Your task to perform on an android device: Open location settings Image 0: 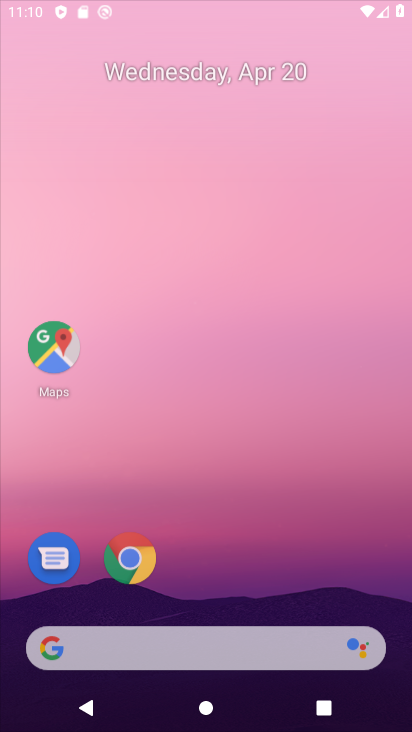
Step 0: drag from (239, 240) to (281, 472)
Your task to perform on an android device: Open location settings Image 1: 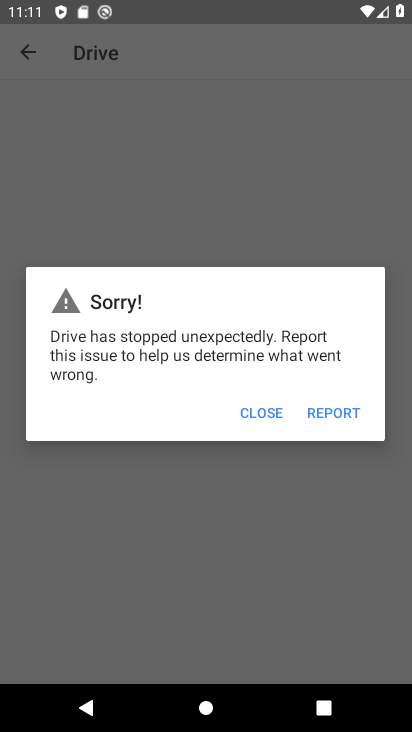
Step 1: press home button
Your task to perform on an android device: Open location settings Image 2: 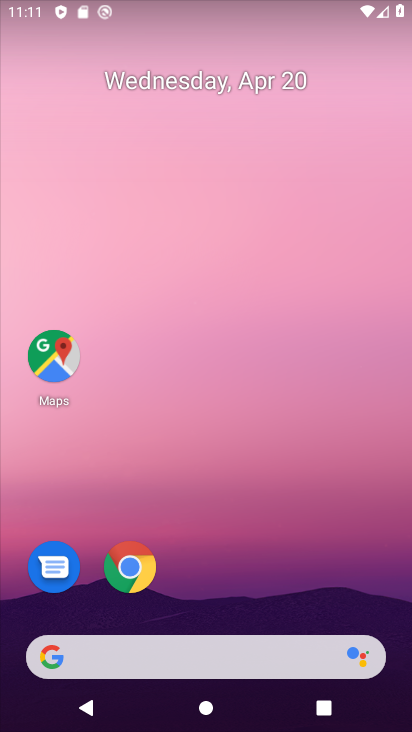
Step 2: drag from (318, 617) to (255, 126)
Your task to perform on an android device: Open location settings Image 3: 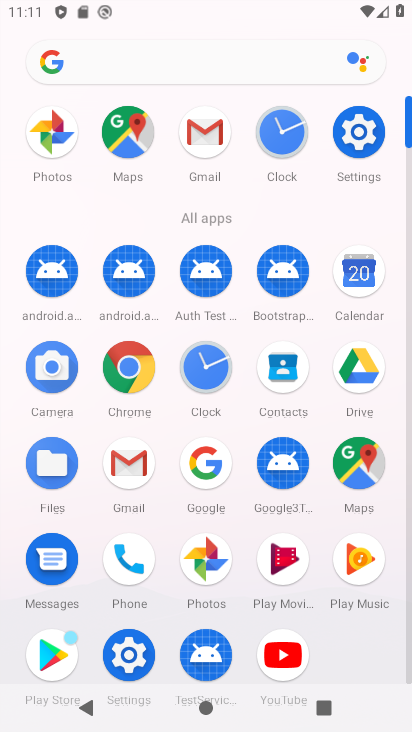
Step 3: click (355, 131)
Your task to perform on an android device: Open location settings Image 4: 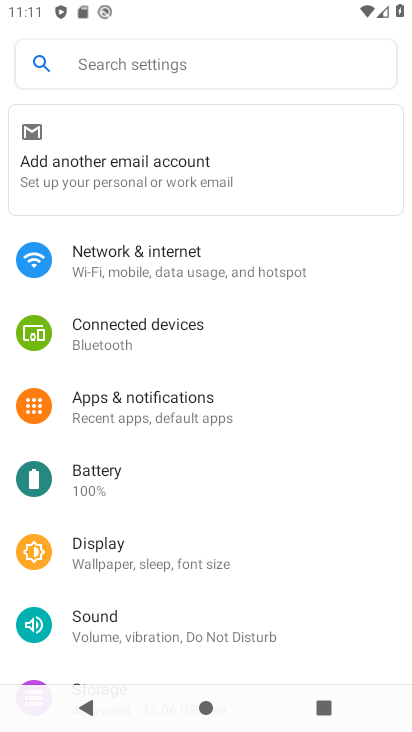
Step 4: drag from (203, 631) to (175, 310)
Your task to perform on an android device: Open location settings Image 5: 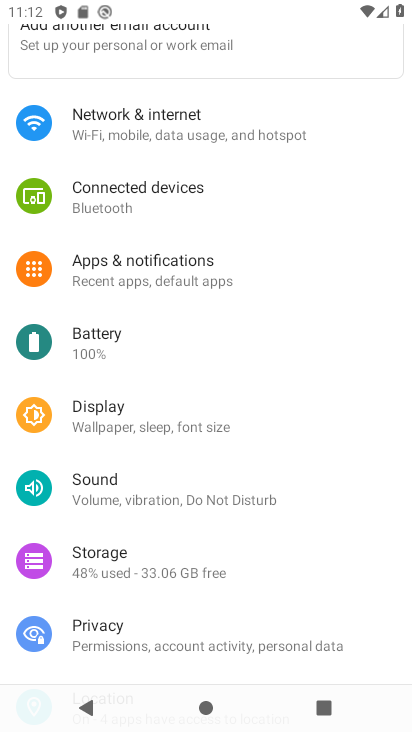
Step 5: drag from (249, 601) to (213, 166)
Your task to perform on an android device: Open location settings Image 6: 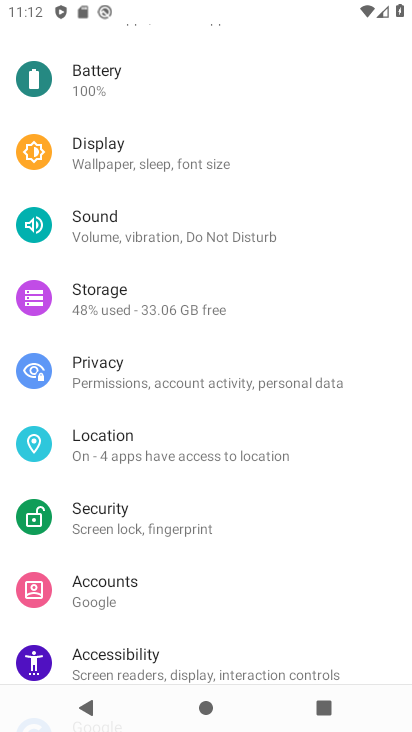
Step 6: click (237, 443)
Your task to perform on an android device: Open location settings Image 7: 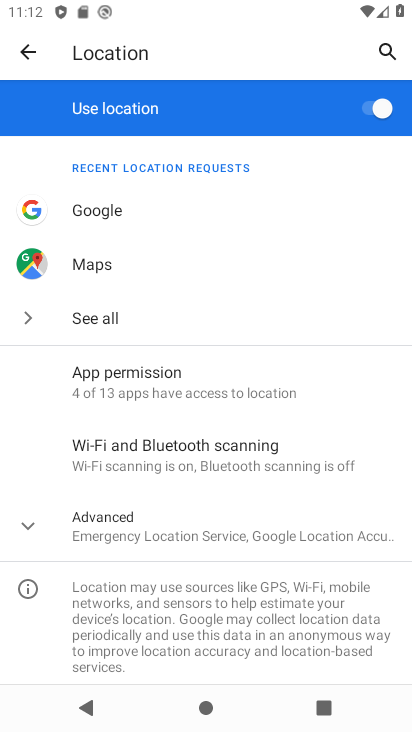
Step 7: task complete